Your task to perform on an android device: open wifi settings Image 0: 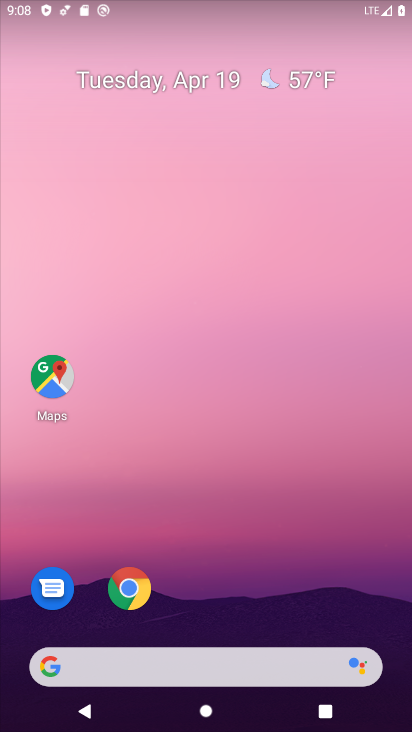
Step 0: drag from (252, 549) to (224, 87)
Your task to perform on an android device: open wifi settings Image 1: 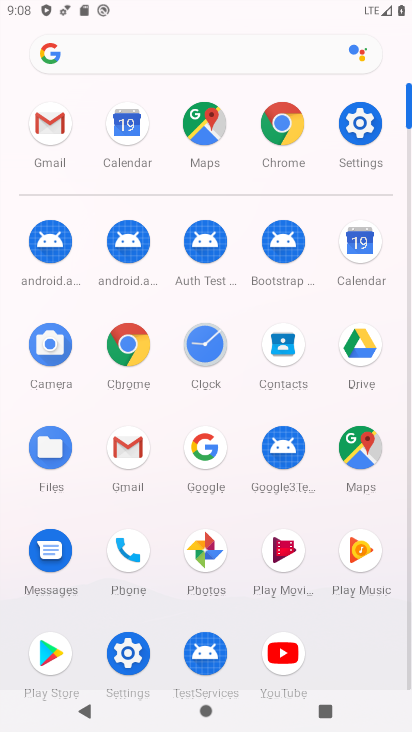
Step 1: click (366, 123)
Your task to perform on an android device: open wifi settings Image 2: 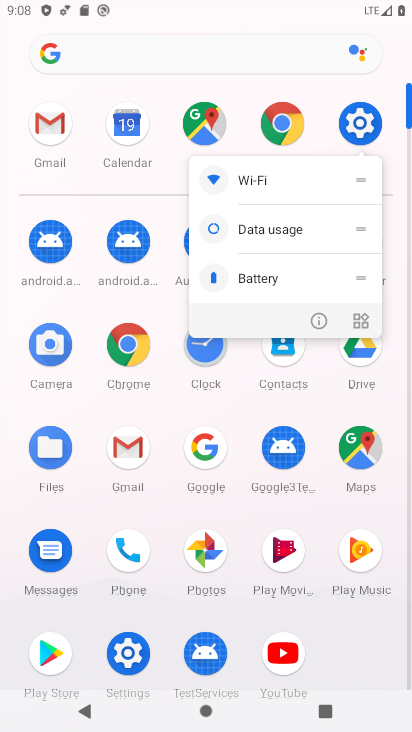
Step 2: click (366, 123)
Your task to perform on an android device: open wifi settings Image 3: 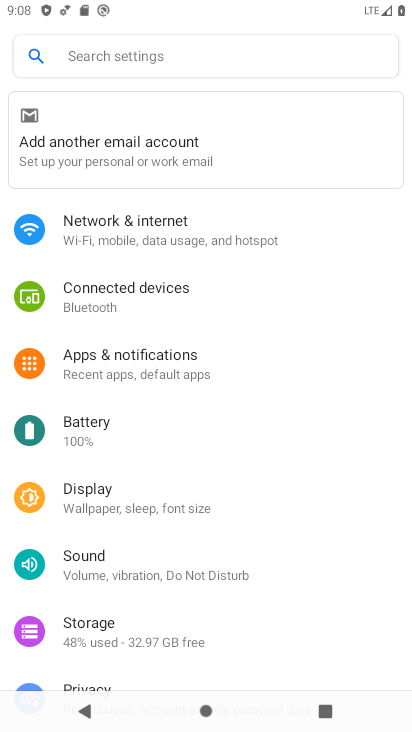
Step 3: click (135, 232)
Your task to perform on an android device: open wifi settings Image 4: 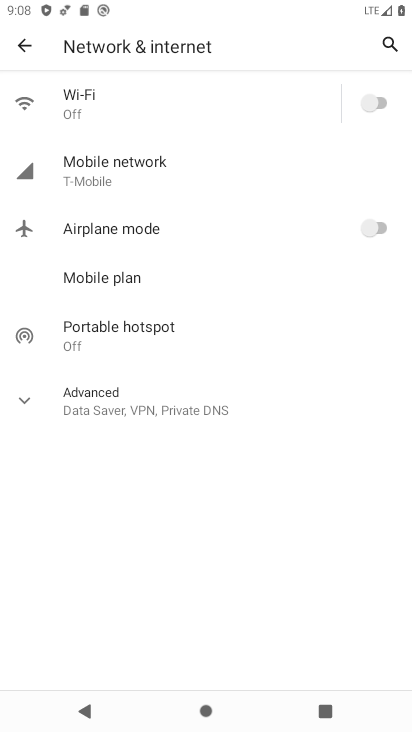
Step 4: click (39, 109)
Your task to perform on an android device: open wifi settings Image 5: 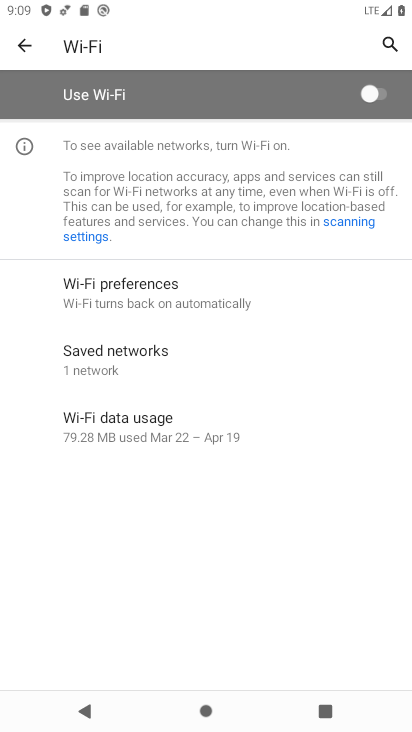
Step 5: task complete